Your task to perform on an android device: Open the calendar app, open the side menu, and click the "Day" option Image 0: 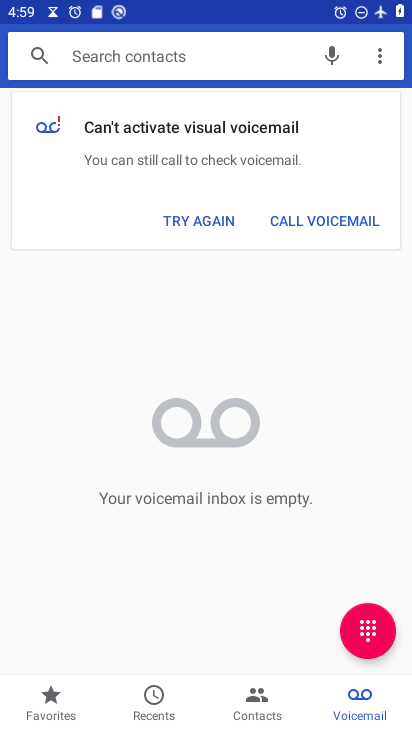
Step 0: press back button
Your task to perform on an android device: Open the calendar app, open the side menu, and click the "Day" option Image 1: 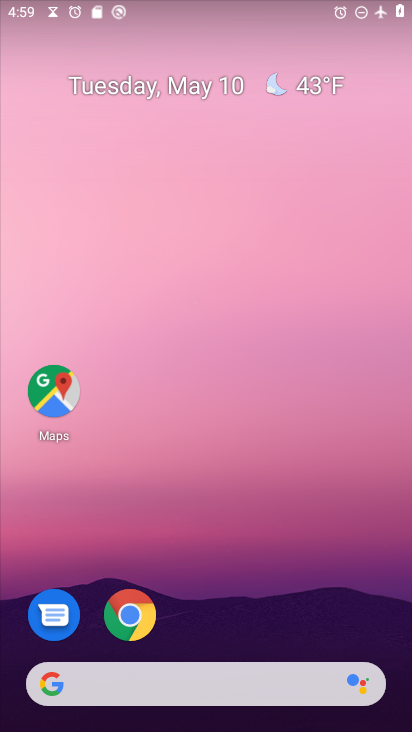
Step 1: drag from (210, 537) to (241, 92)
Your task to perform on an android device: Open the calendar app, open the side menu, and click the "Day" option Image 2: 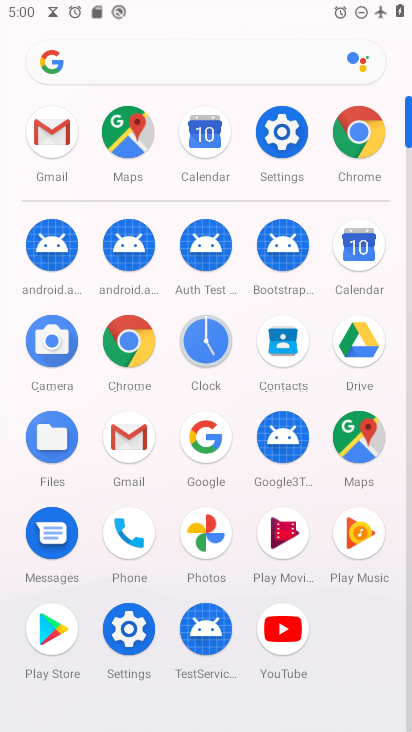
Step 2: drag from (10, 556) to (9, 280)
Your task to perform on an android device: Open the calendar app, open the side menu, and click the "Day" option Image 3: 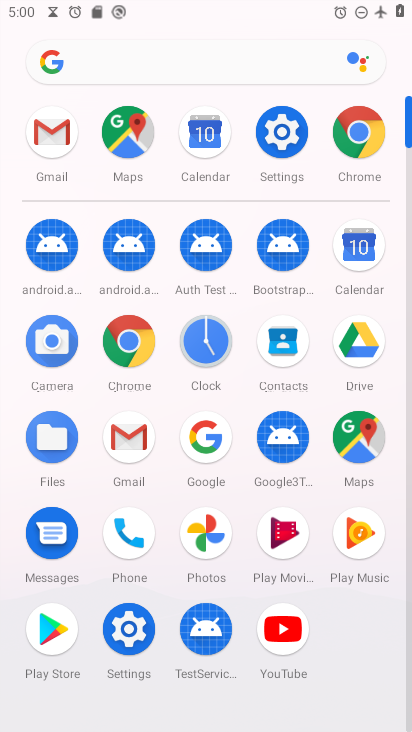
Step 3: drag from (13, 571) to (10, 298)
Your task to perform on an android device: Open the calendar app, open the side menu, and click the "Day" option Image 4: 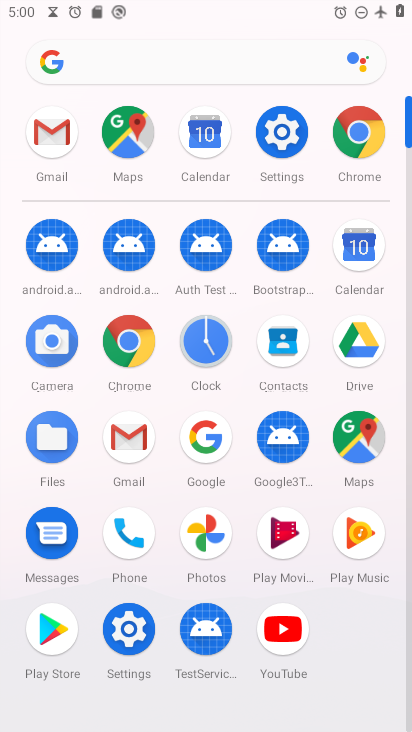
Step 4: click (355, 237)
Your task to perform on an android device: Open the calendar app, open the side menu, and click the "Day" option Image 5: 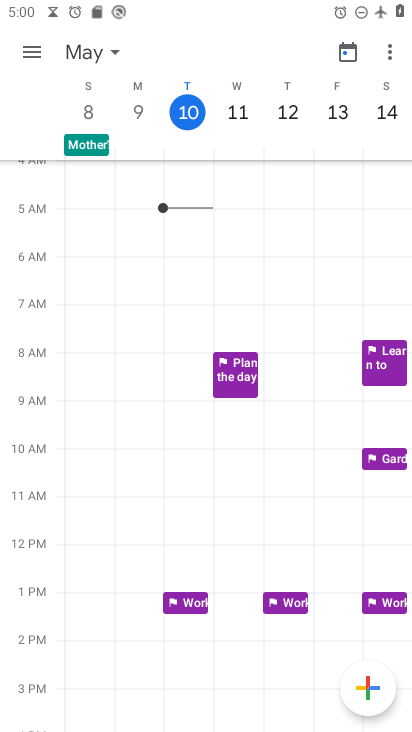
Step 5: click (34, 56)
Your task to perform on an android device: Open the calendar app, open the side menu, and click the "Day" option Image 6: 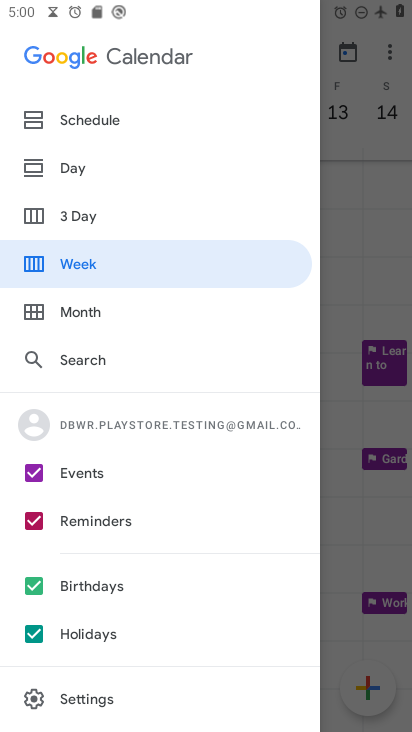
Step 6: click (66, 169)
Your task to perform on an android device: Open the calendar app, open the side menu, and click the "Day" option Image 7: 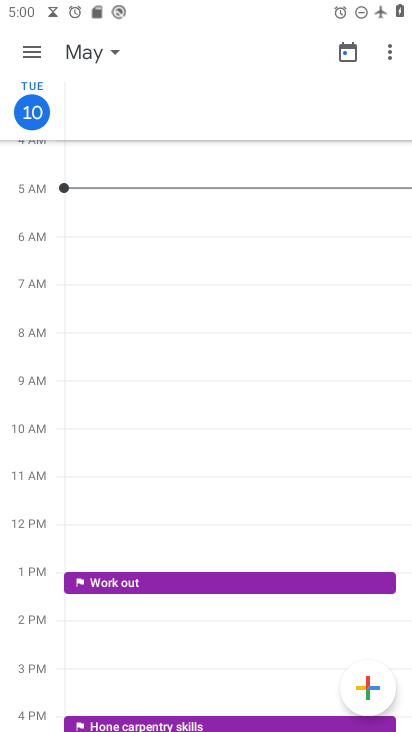
Step 7: task complete